Your task to perform on an android device: change timer sound Image 0: 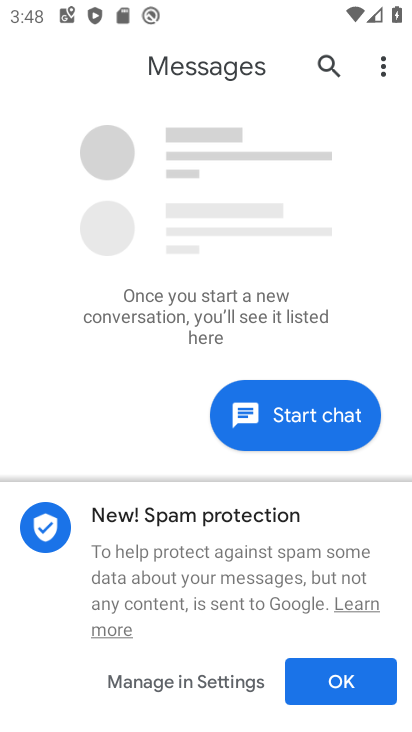
Step 0: press home button
Your task to perform on an android device: change timer sound Image 1: 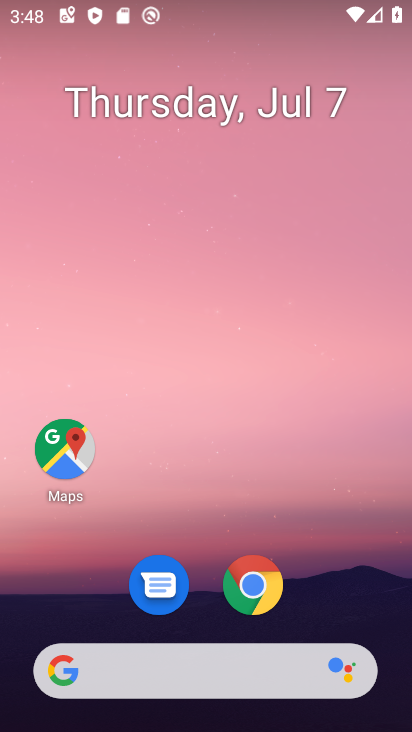
Step 1: drag from (255, 458) to (250, 26)
Your task to perform on an android device: change timer sound Image 2: 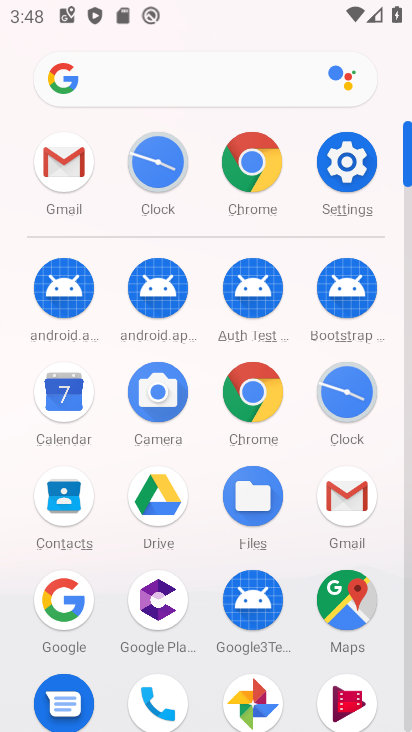
Step 2: click (335, 396)
Your task to perform on an android device: change timer sound Image 3: 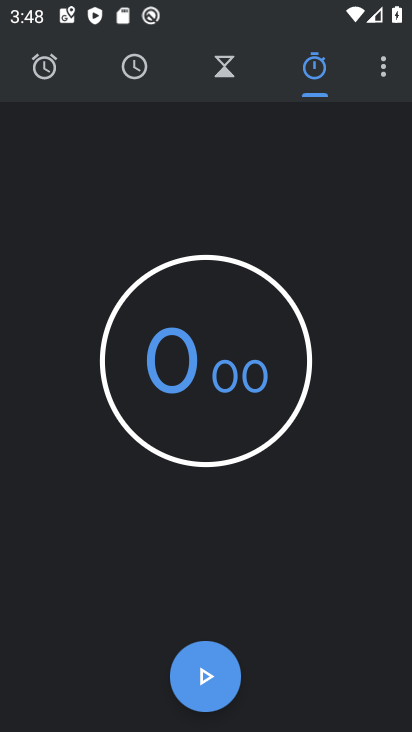
Step 3: click (384, 78)
Your task to perform on an android device: change timer sound Image 4: 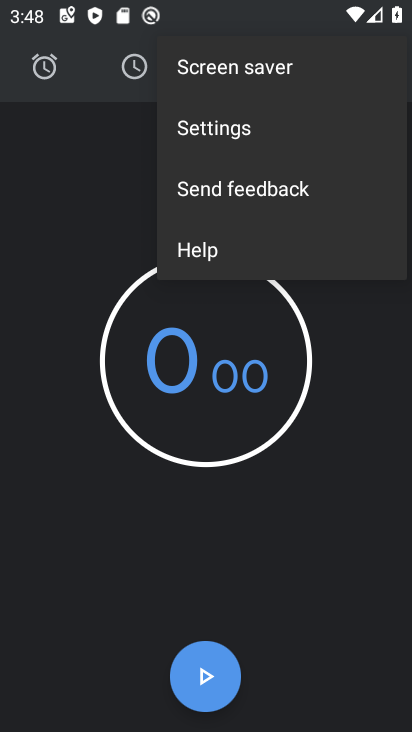
Step 4: click (290, 136)
Your task to perform on an android device: change timer sound Image 5: 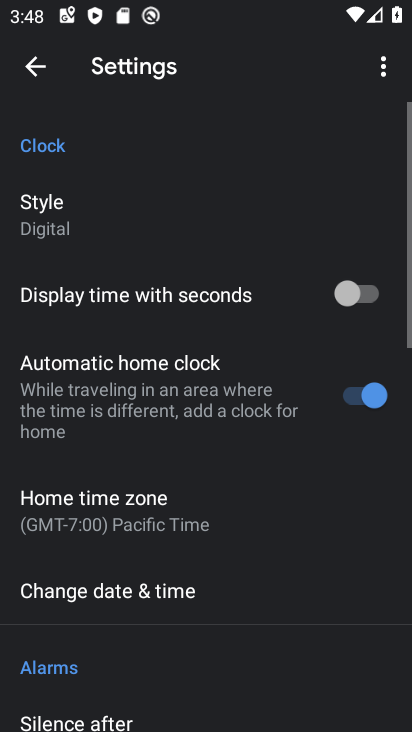
Step 5: drag from (251, 548) to (250, 121)
Your task to perform on an android device: change timer sound Image 6: 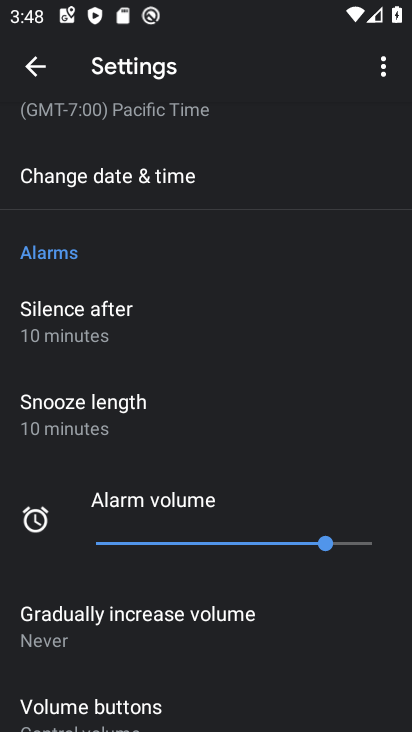
Step 6: drag from (252, 640) to (208, 177)
Your task to perform on an android device: change timer sound Image 7: 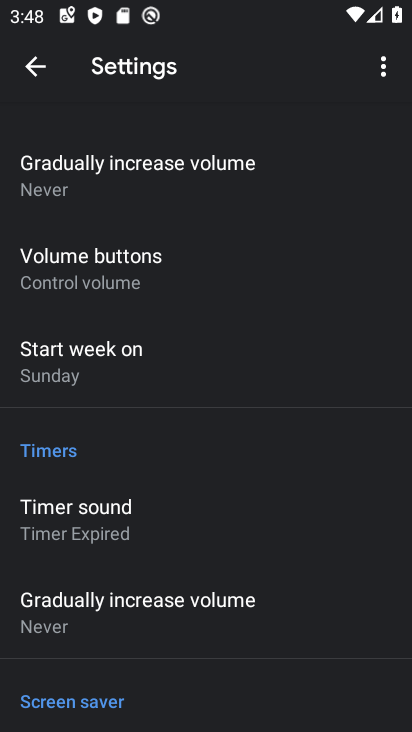
Step 7: click (106, 502)
Your task to perform on an android device: change timer sound Image 8: 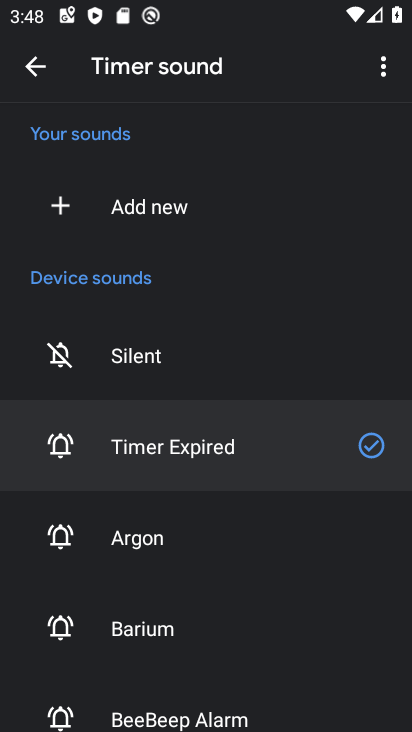
Step 8: click (110, 540)
Your task to perform on an android device: change timer sound Image 9: 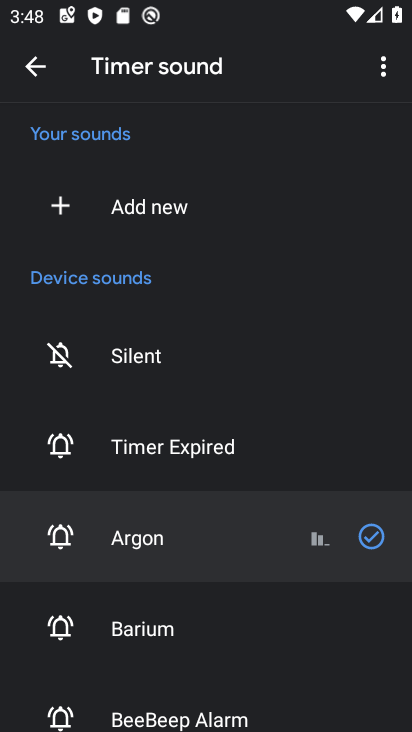
Step 9: task complete